Your task to perform on an android device: Do I have any events this weekend? Image 0: 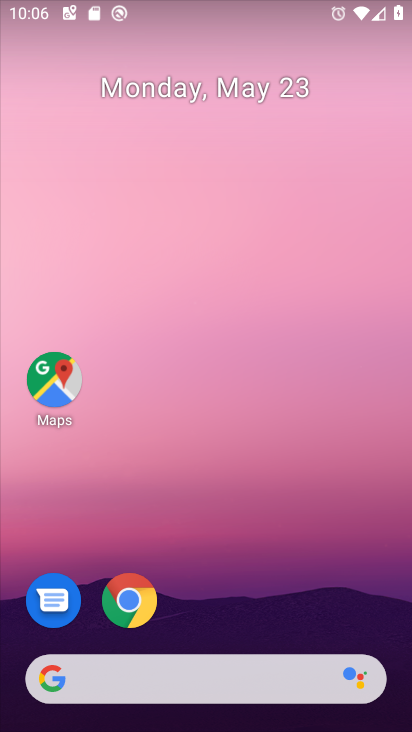
Step 0: drag from (222, 709) to (227, 167)
Your task to perform on an android device: Do I have any events this weekend? Image 1: 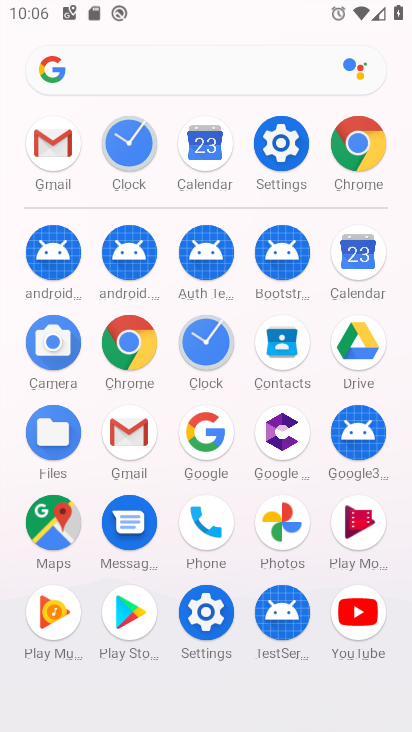
Step 1: click (359, 257)
Your task to perform on an android device: Do I have any events this weekend? Image 2: 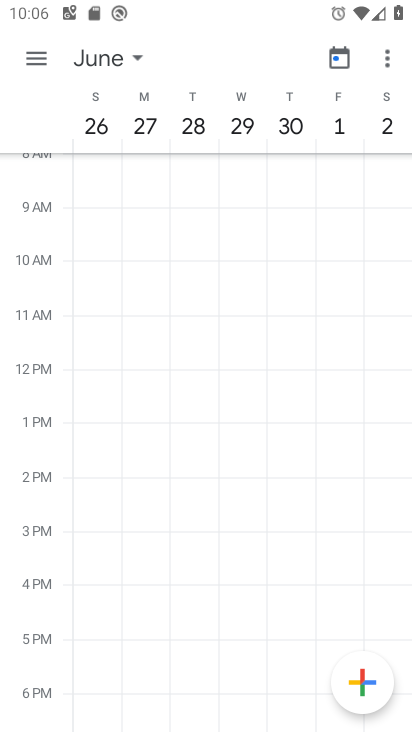
Step 2: click (137, 52)
Your task to perform on an android device: Do I have any events this weekend? Image 3: 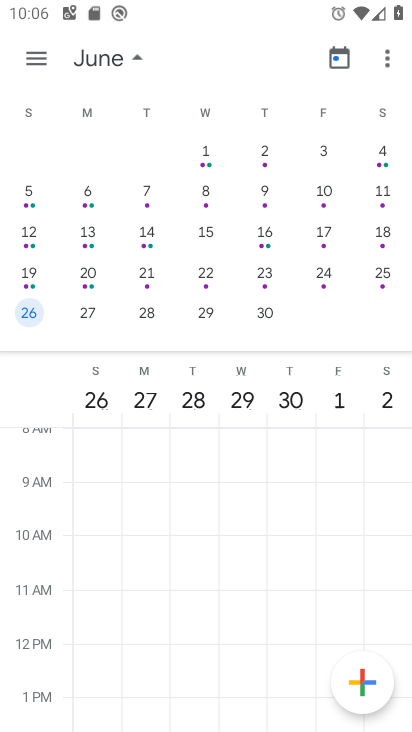
Step 3: drag from (36, 224) to (399, 236)
Your task to perform on an android device: Do I have any events this weekend? Image 4: 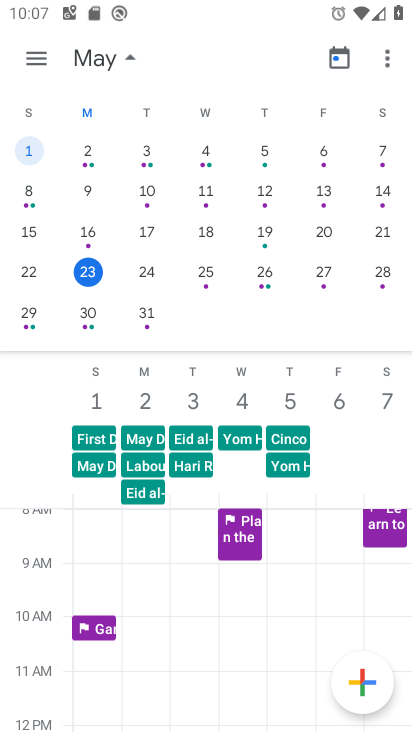
Step 4: click (380, 265)
Your task to perform on an android device: Do I have any events this weekend? Image 5: 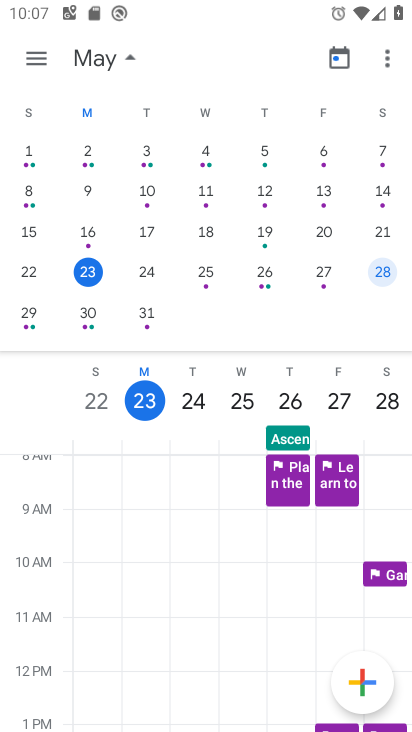
Step 5: click (129, 53)
Your task to perform on an android device: Do I have any events this weekend? Image 6: 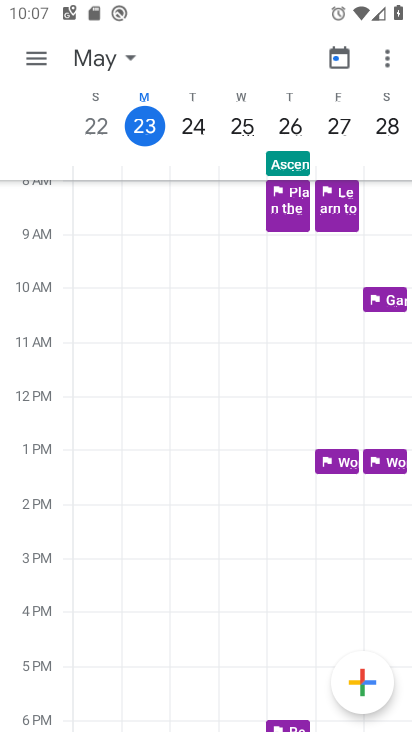
Step 6: task complete